Your task to perform on an android device: Open the web browser Image 0: 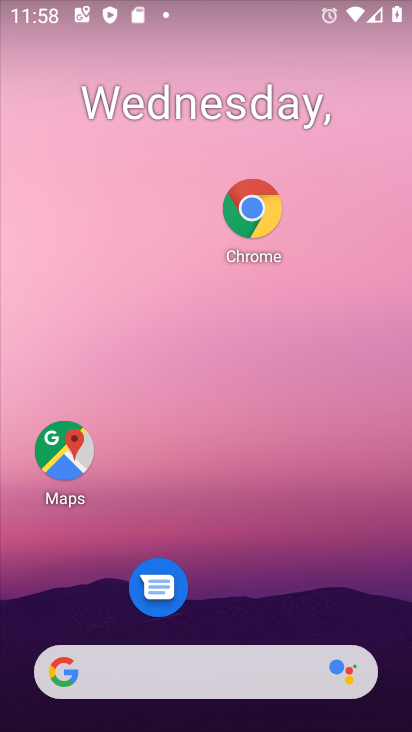
Step 0: click (247, 216)
Your task to perform on an android device: Open the web browser Image 1: 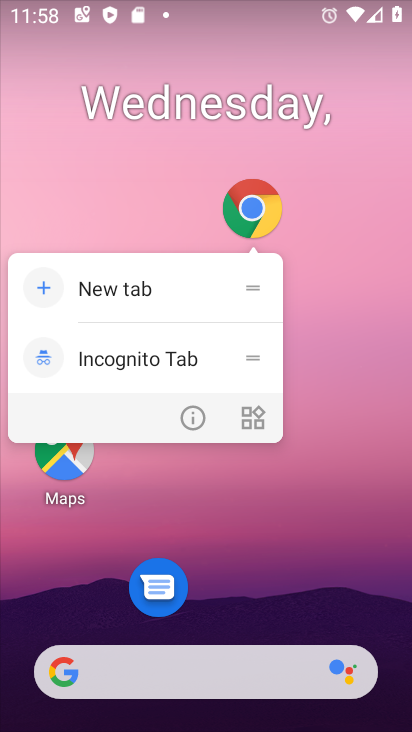
Step 1: click (252, 214)
Your task to perform on an android device: Open the web browser Image 2: 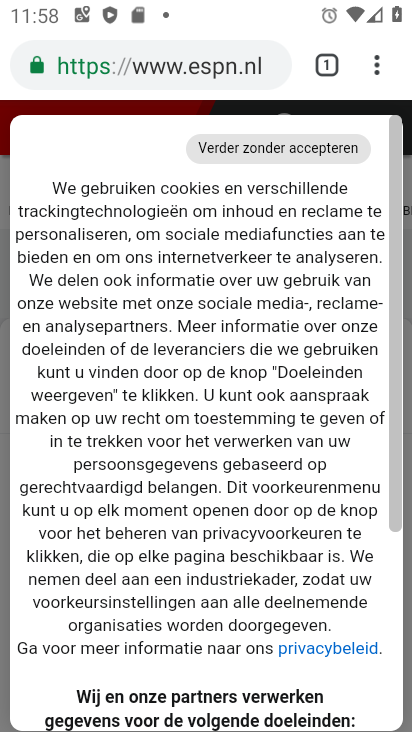
Step 2: task complete